Your task to perform on an android device: open app "Etsy: Buy & Sell Unique Items" (install if not already installed) and enter user name: "camp@inbox.com" and password: "unrelated" Image 0: 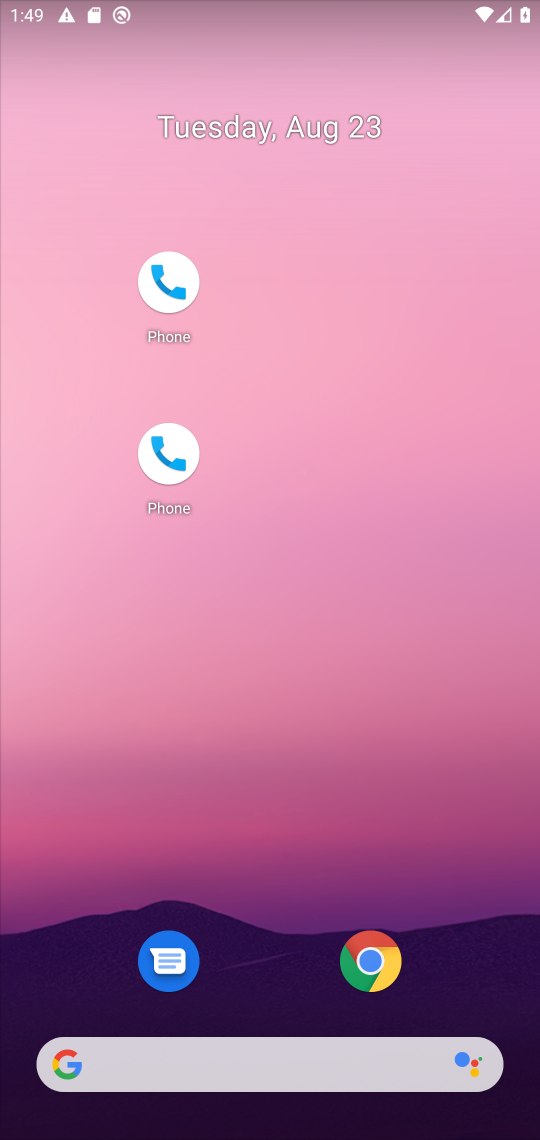
Step 0: drag from (283, 1001) to (240, 21)
Your task to perform on an android device: open app "Etsy: Buy & Sell Unique Items" (install if not already installed) and enter user name: "camp@inbox.com" and password: "unrelated" Image 1: 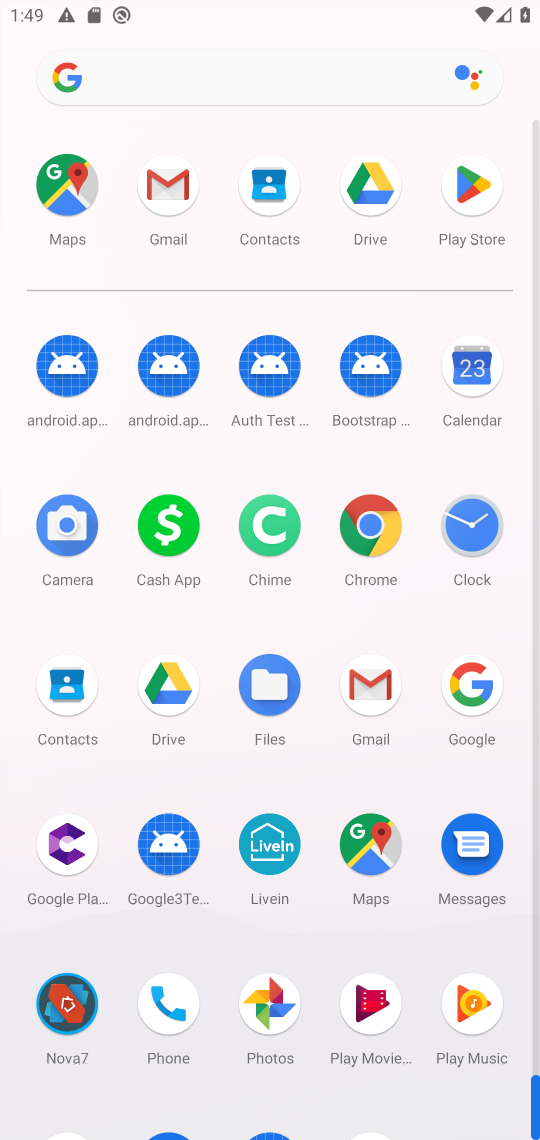
Step 1: click (484, 217)
Your task to perform on an android device: open app "Etsy: Buy & Sell Unique Items" (install if not already installed) and enter user name: "camp@inbox.com" and password: "unrelated" Image 2: 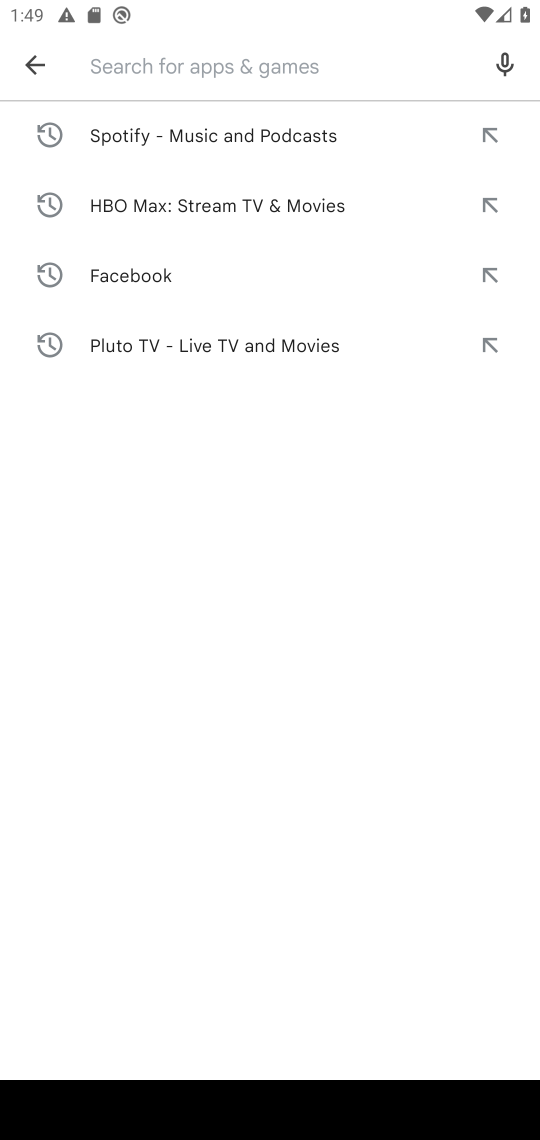
Step 2: type "etsy"
Your task to perform on an android device: open app "Etsy: Buy & Sell Unique Items" (install if not already installed) and enter user name: "camp@inbox.com" and password: "unrelated" Image 3: 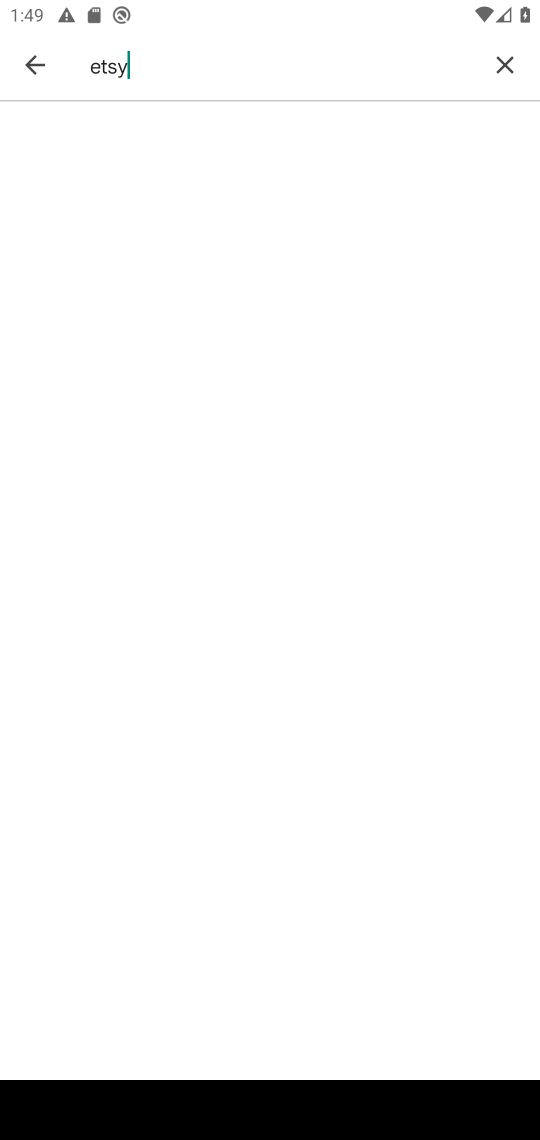
Step 3: task complete